Your task to perform on an android device: toggle airplane mode Image 0: 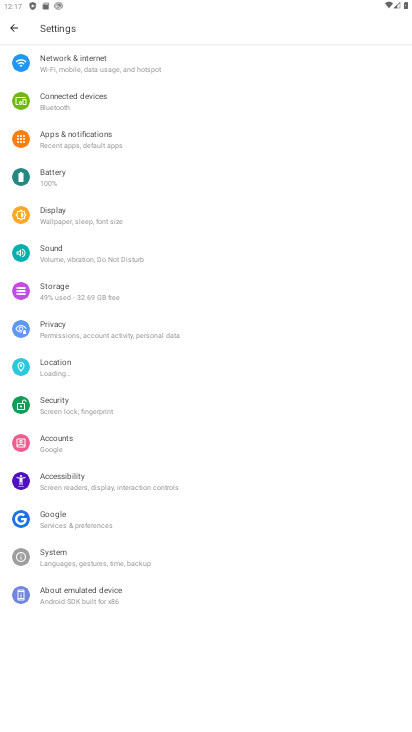
Step 0: press home button
Your task to perform on an android device: toggle airplane mode Image 1: 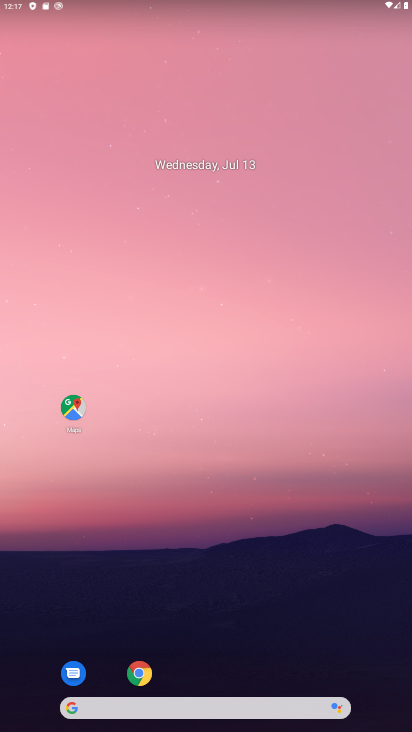
Step 1: drag from (239, 658) to (232, 76)
Your task to perform on an android device: toggle airplane mode Image 2: 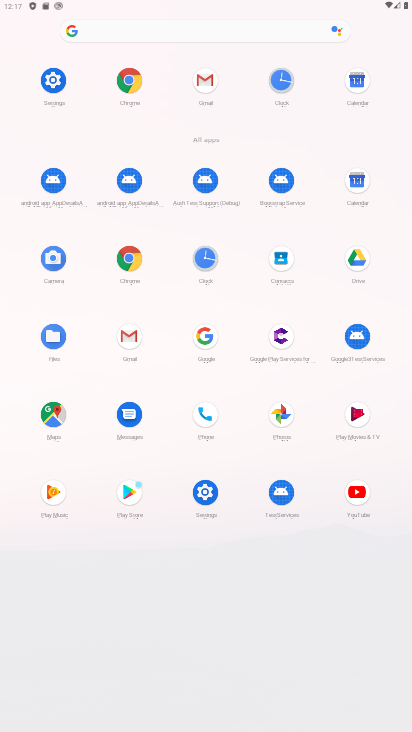
Step 2: click (47, 89)
Your task to perform on an android device: toggle airplane mode Image 3: 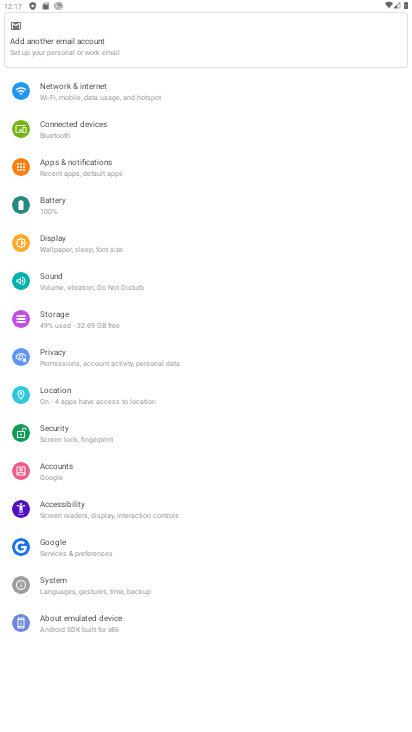
Step 3: click (138, 93)
Your task to perform on an android device: toggle airplane mode Image 4: 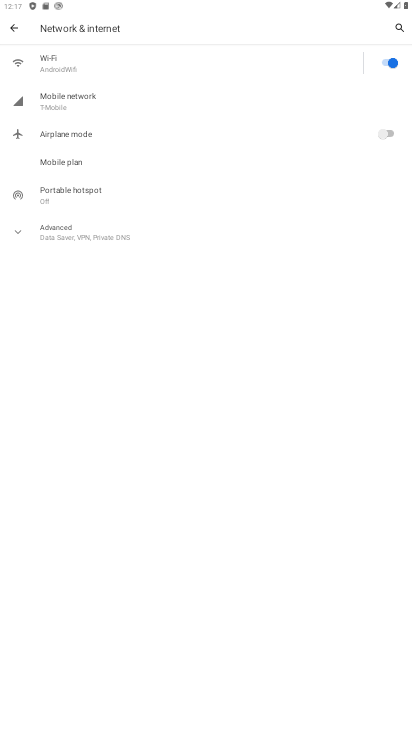
Step 4: click (379, 131)
Your task to perform on an android device: toggle airplane mode Image 5: 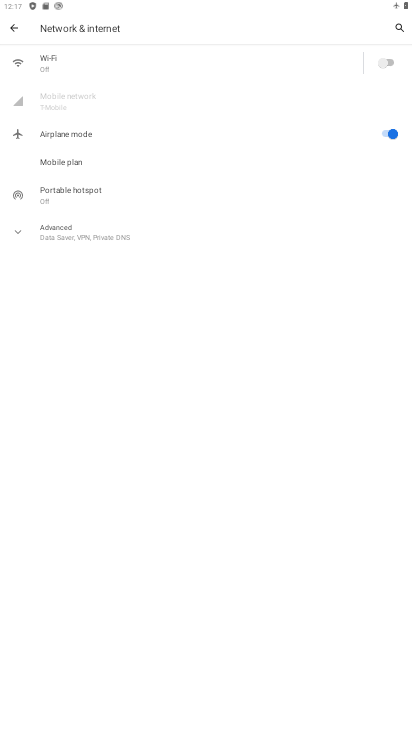
Step 5: click (381, 51)
Your task to perform on an android device: toggle airplane mode Image 6: 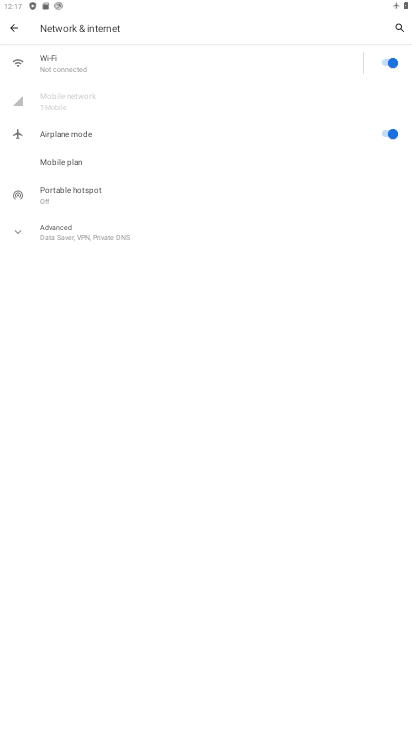
Step 6: task complete